Your task to perform on an android device: Search for pizza restaurants on Maps Image 0: 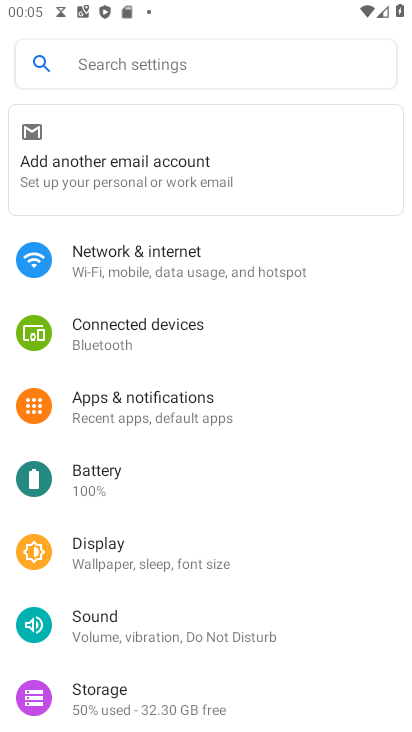
Step 0: press back button
Your task to perform on an android device: Search for pizza restaurants on Maps Image 1: 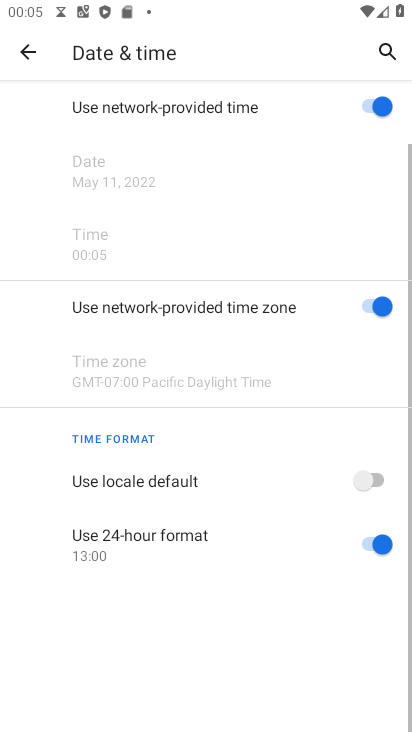
Step 1: press back button
Your task to perform on an android device: Search for pizza restaurants on Maps Image 2: 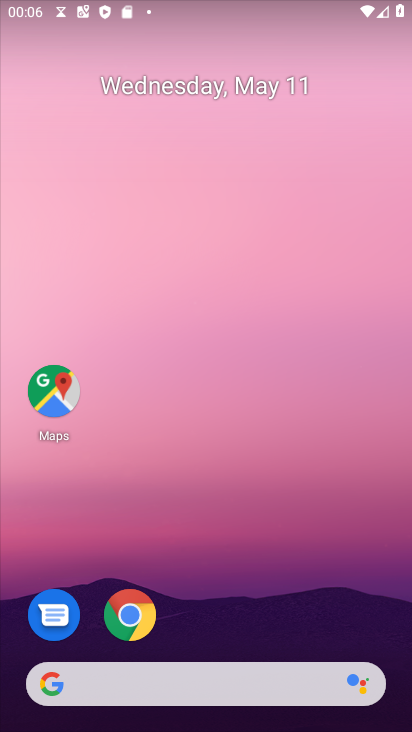
Step 2: click (53, 394)
Your task to perform on an android device: Search for pizza restaurants on Maps Image 3: 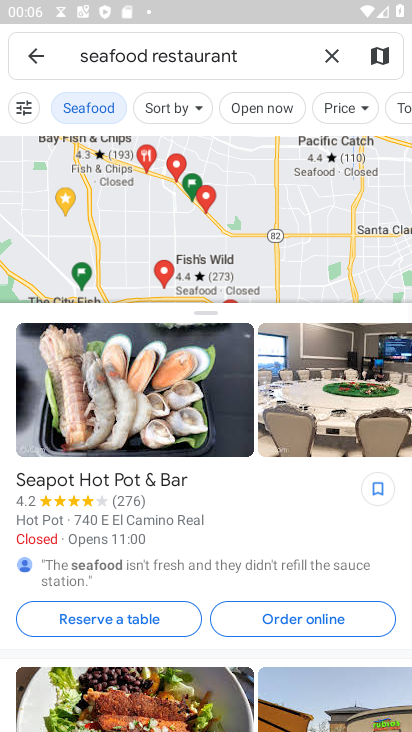
Step 3: click (332, 55)
Your task to perform on an android device: Search for pizza restaurants on Maps Image 4: 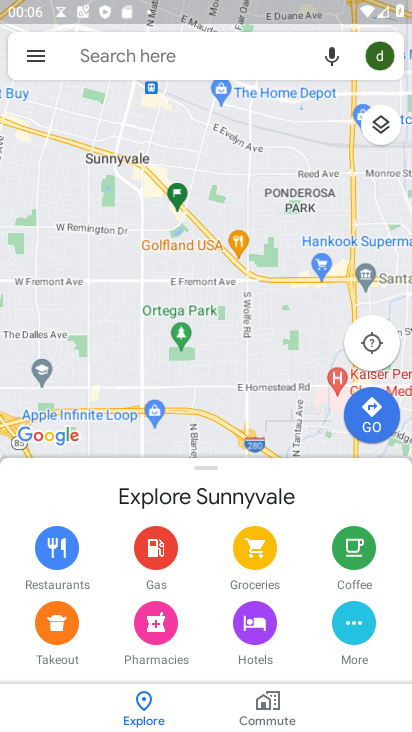
Step 4: click (234, 64)
Your task to perform on an android device: Search for pizza restaurants on Maps Image 5: 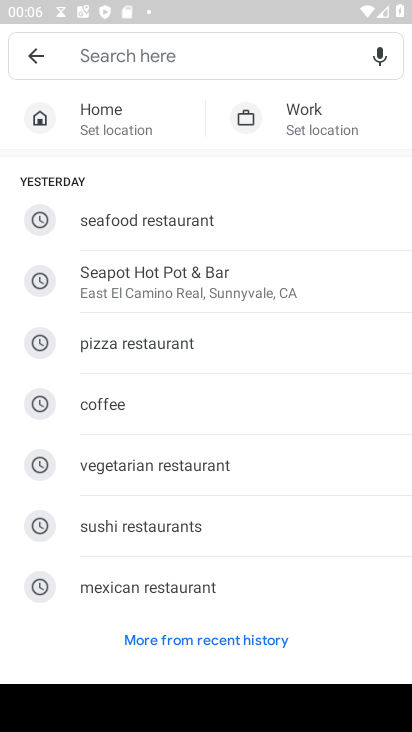
Step 5: type "pizza restaurants"
Your task to perform on an android device: Search for pizza restaurants on Maps Image 6: 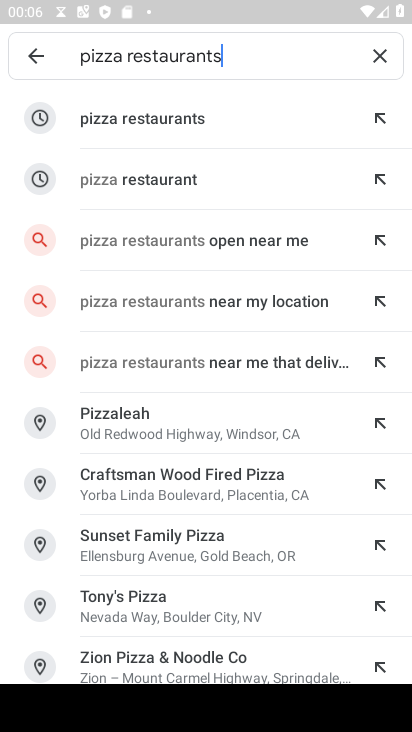
Step 6: click (156, 117)
Your task to perform on an android device: Search for pizza restaurants on Maps Image 7: 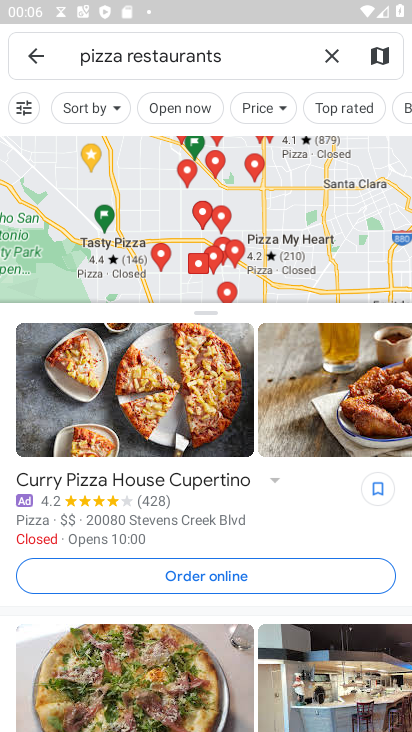
Step 7: task complete